Your task to perform on an android device: choose inbox layout in the gmail app Image 0: 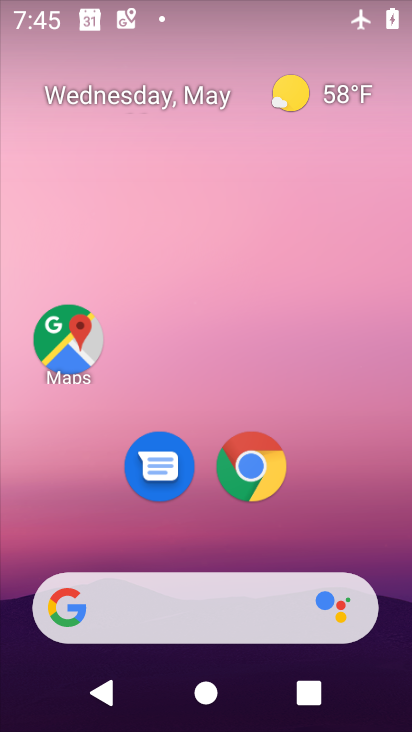
Step 0: drag from (200, 542) to (224, 0)
Your task to perform on an android device: choose inbox layout in the gmail app Image 1: 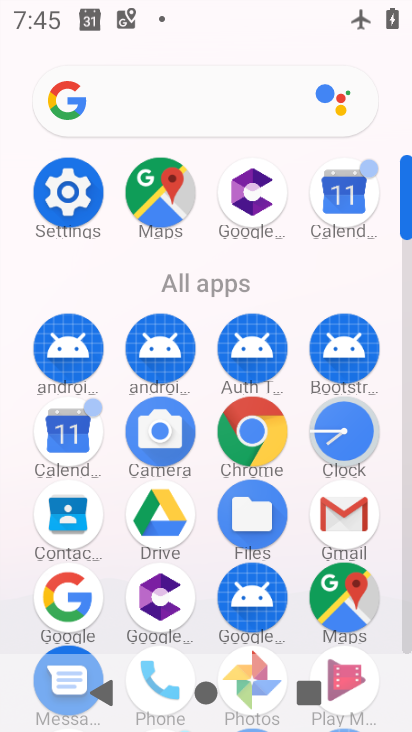
Step 1: click (336, 511)
Your task to perform on an android device: choose inbox layout in the gmail app Image 2: 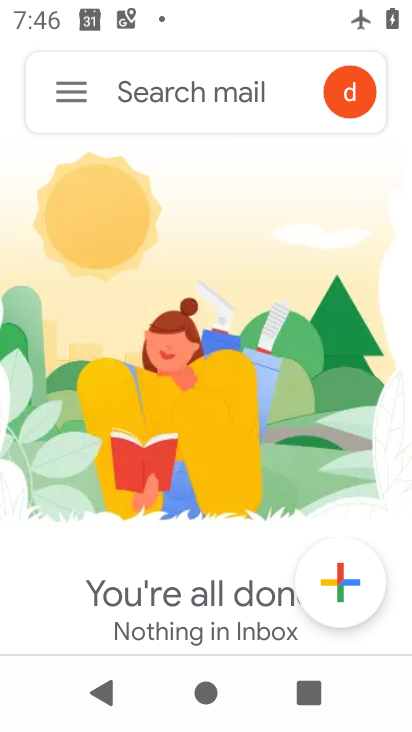
Step 2: click (69, 84)
Your task to perform on an android device: choose inbox layout in the gmail app Image 3: 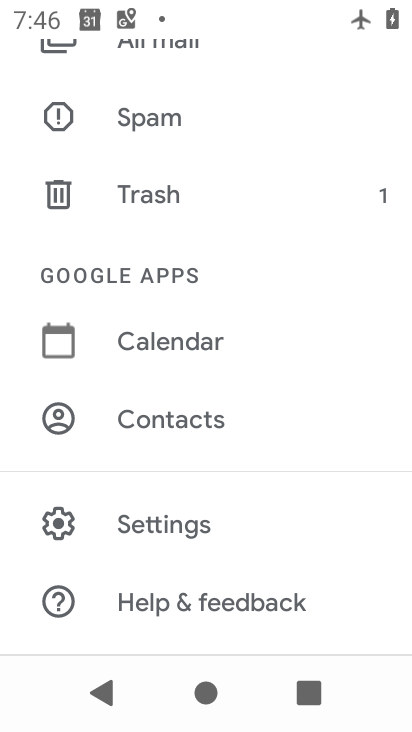
Step 3: click (188, 511)
Your task to perform on an android device: choose inbox layout in the gmail app Image 4: 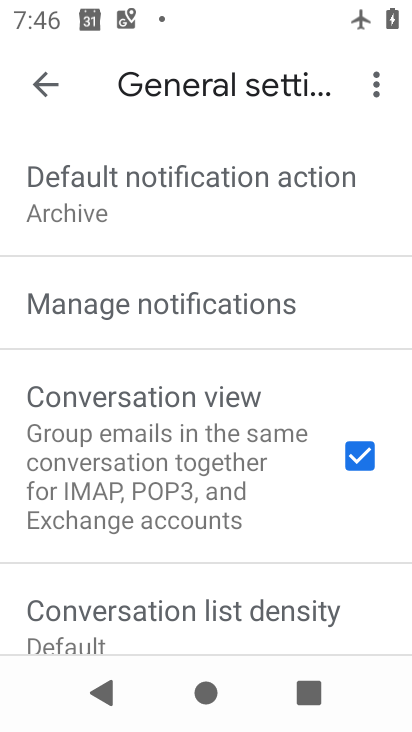
Step 4: click (54, 91)
Your task to perform on an android device: choose inbox layout in the gmail app Image 5: 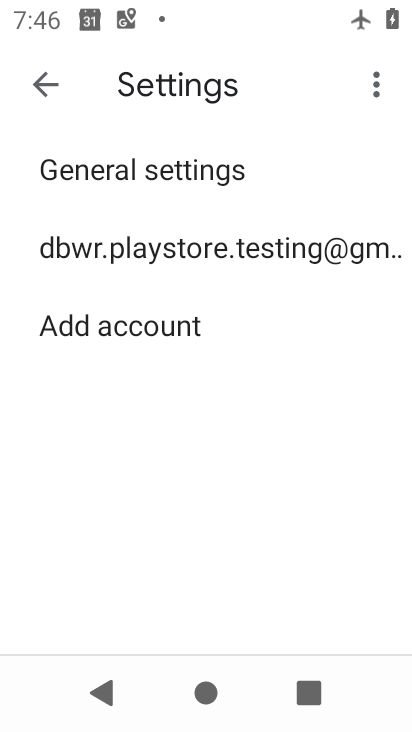
Step 5: click (236, 246)
Your task to perform on an android device: choose inbox layout in the gmail app Image 6: 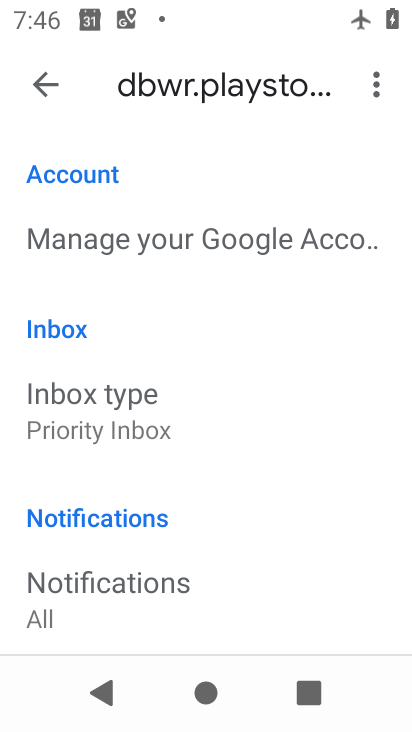
Step 6: click (184, 415)
Your task to perform on an android device: choose inbox layout in the gmail app Image 7: 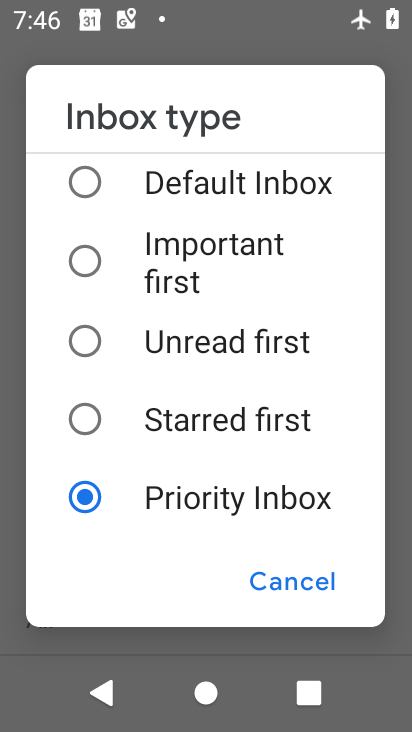
Step 7: click (81, 179)
Your task to perform on an android device: choose inbox layout in the gmail app Image 8: 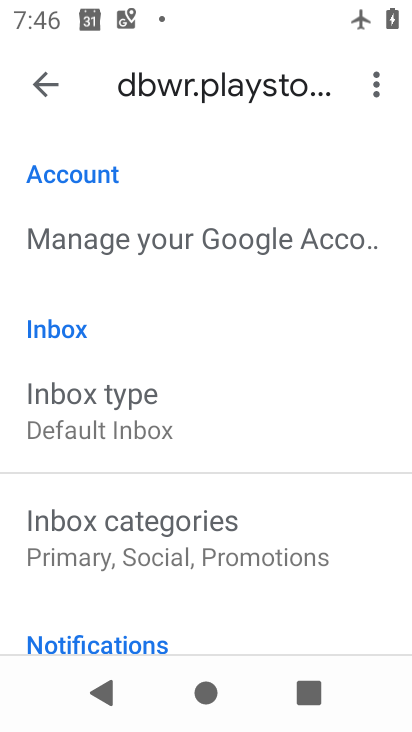
Step 8: task complete